Your task to perform on an android device: turn on improve location accuracy Image 0: 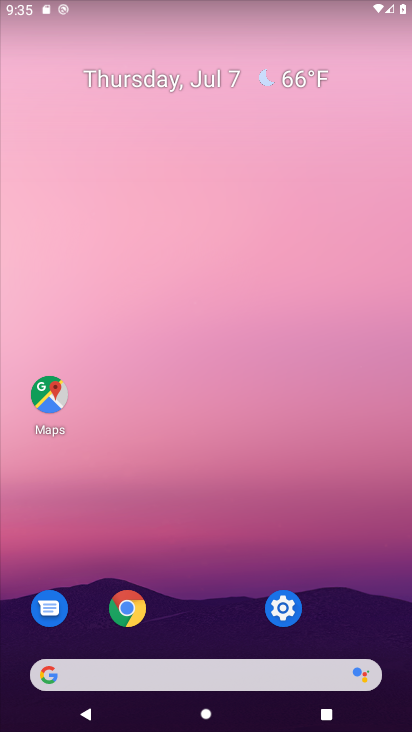
Step 0: click (292, 616)
Your task to perform on an android device: turn on improve location accuracy Image 1: 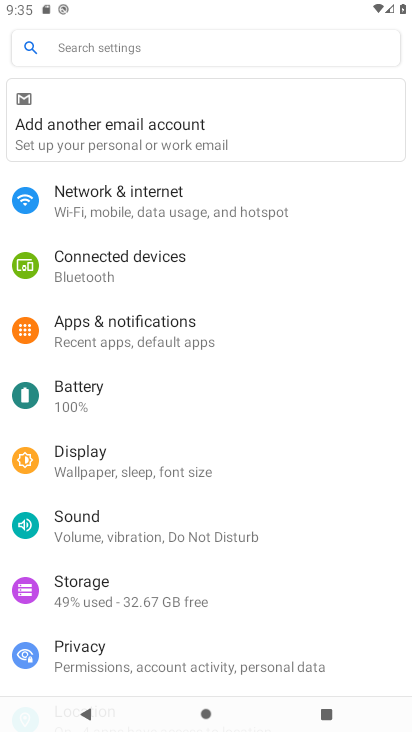
Step 1: drag from (129, 572) to (126, 458)
Your task to perform on an android device: turn on improve location accuracy Image 2: 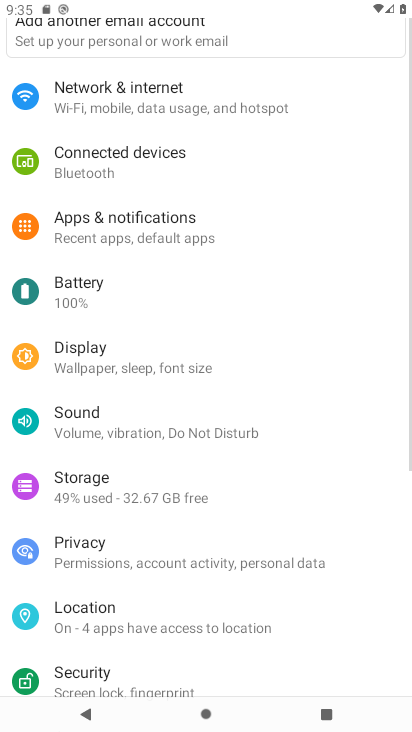
Step 2: drag from (129, 637) to (142, 605)
Your task to perform on an android device: turn on improve location accuracy Image 3: 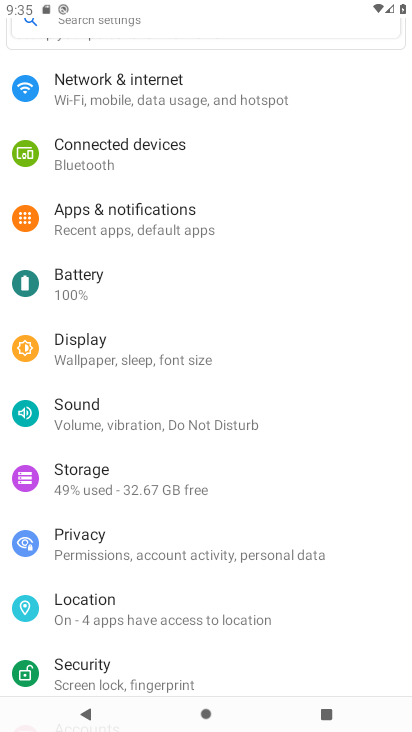
Step 3: click (124, 610)
Your task to perform on an android device: turn on improve location accuracy Image 4: 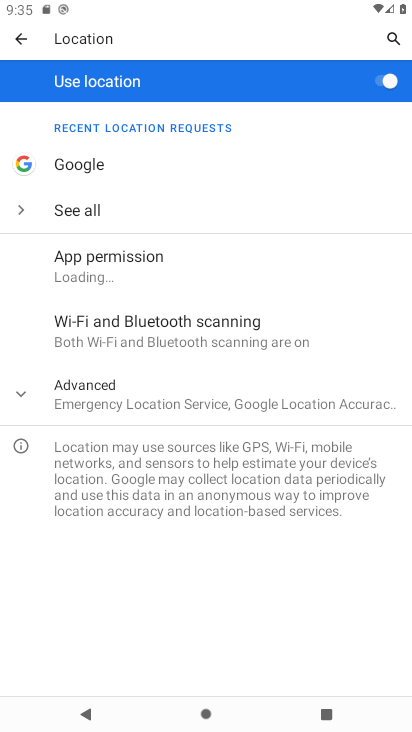
Step 4: click (92, 407)
Your task to perform on an android device: turn on improve location accuracy Image 5: 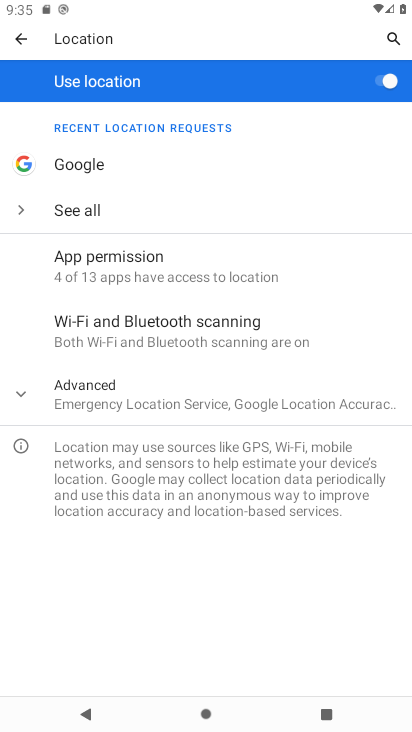
Step 5: click (46, 399)
Your task to perform on an android device: turn on improve location accuracy Image 6: 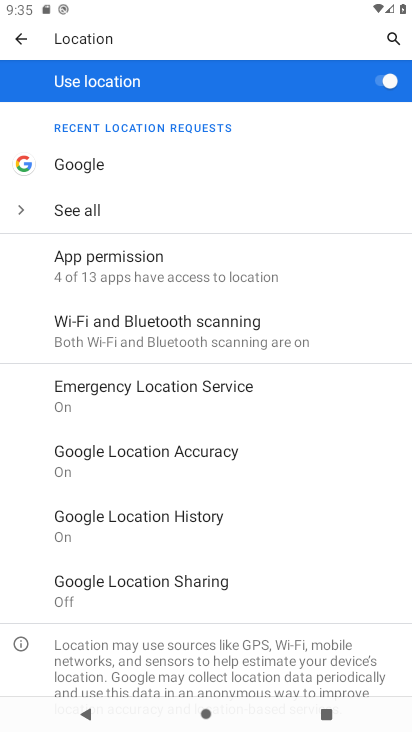
Step 6: click (156, 452)
Your task to perform on an android device: turn on improve location accuracy Image 7: 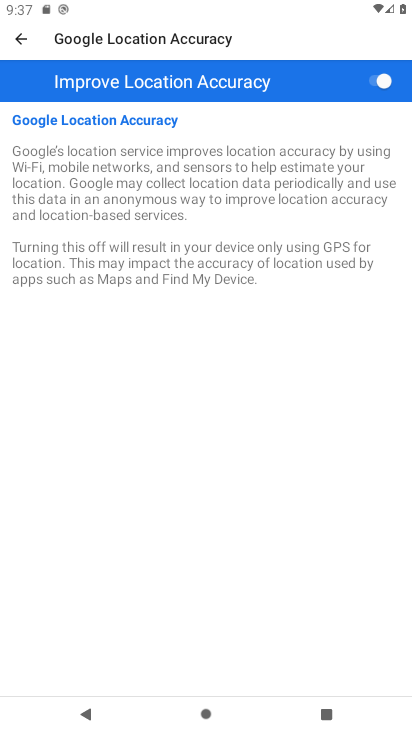
Step 7: task complete